Your task to perform on an android device: all mails in gmail Image 0: 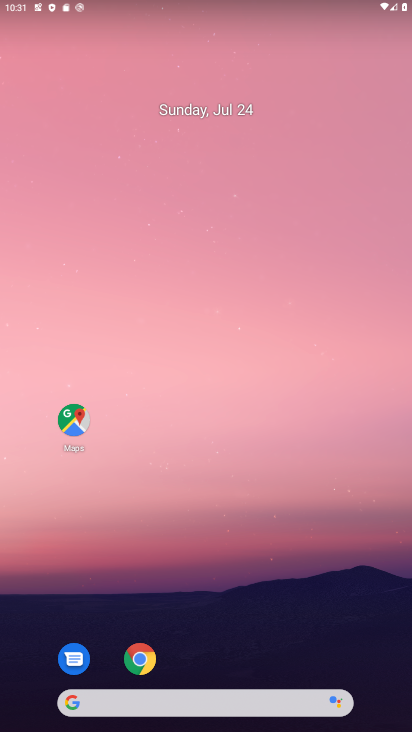
Step 0: drag from (367, 488) to (234, 1)
Your task to perform on an android device: all mails in gmail Image 1: 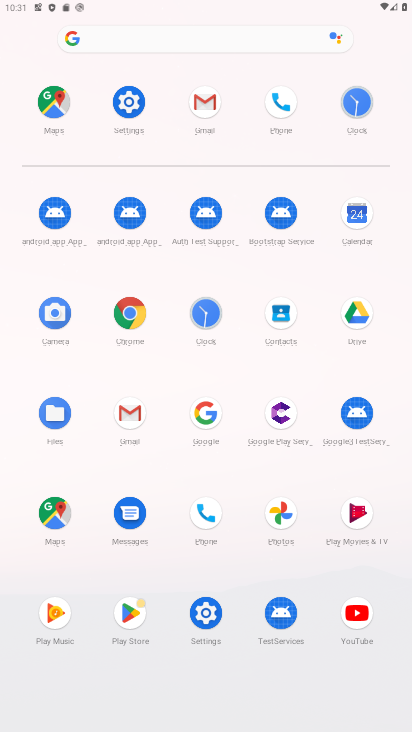
Step 1: click (136, 426)
Your task to perform on an android device: all mails in gmail Image 2: 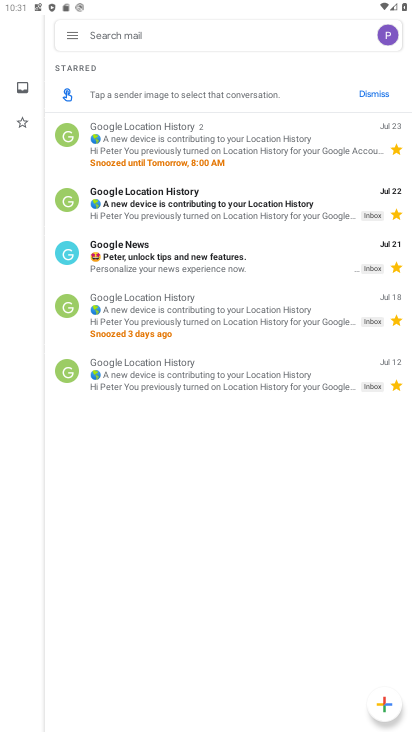
Step 2: click (74, 37)
Your task to perform on an android device: all mails in gmail Image 3: 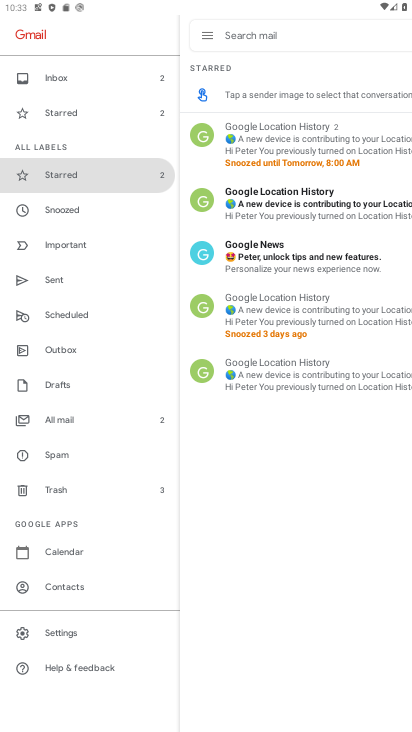
Step 3: click (70, 416)
Your task to perform on an android device: all mails in gmail Image 4: 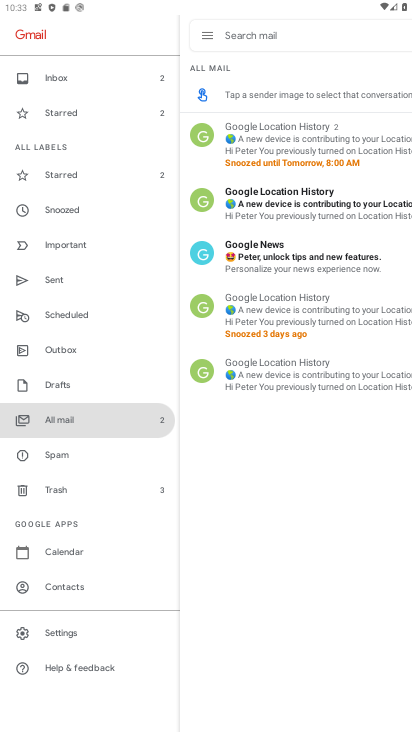
Step 4: task complete